Your task to perform on an android device: Open notification settings Image 0: 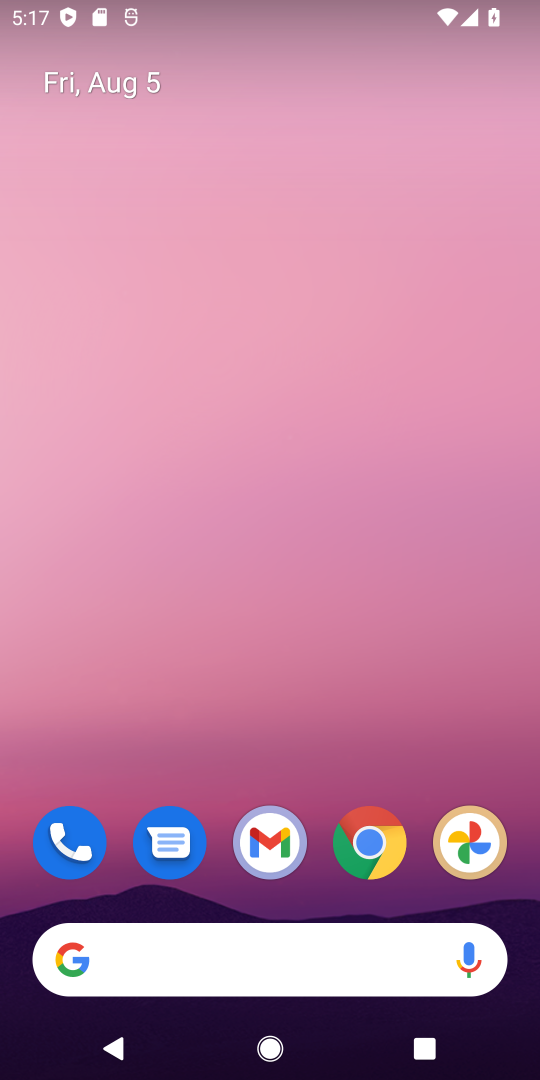
Step 0: press home button
Your task to perform on an android device: Open notification settings Image 1: 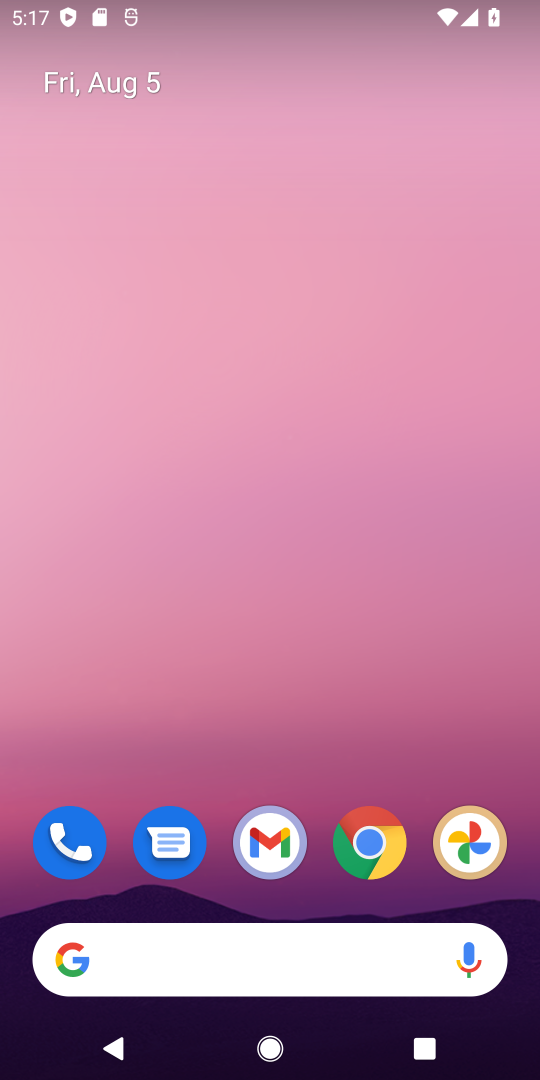
Step 1: drag from (277, 482) to (461, 15)
Your task to perform on an android device: Open notification settings Image 2: 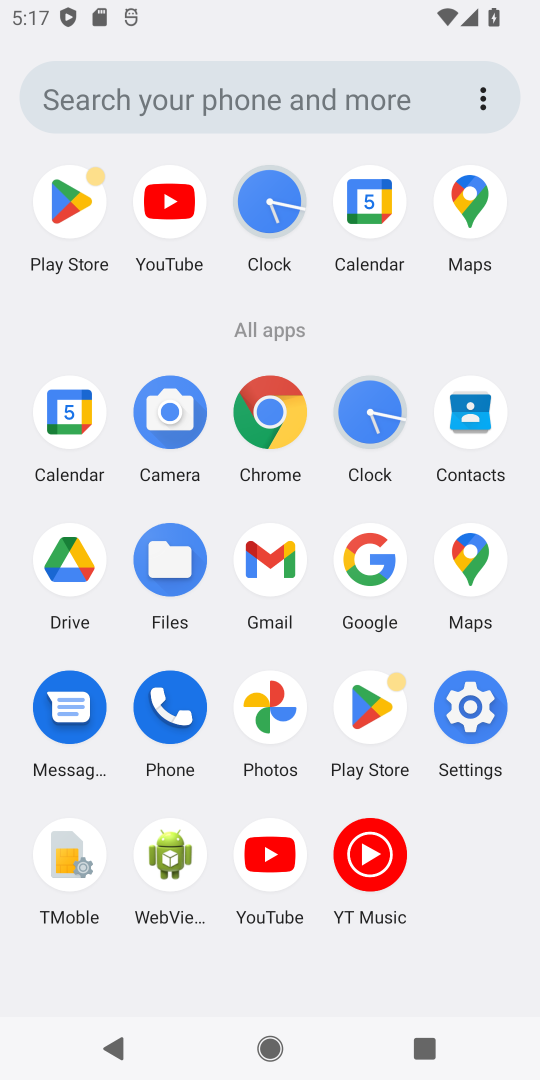
Step 2: click (473, 724)
Your task to perform on an android device: Open notification settings Image 3: 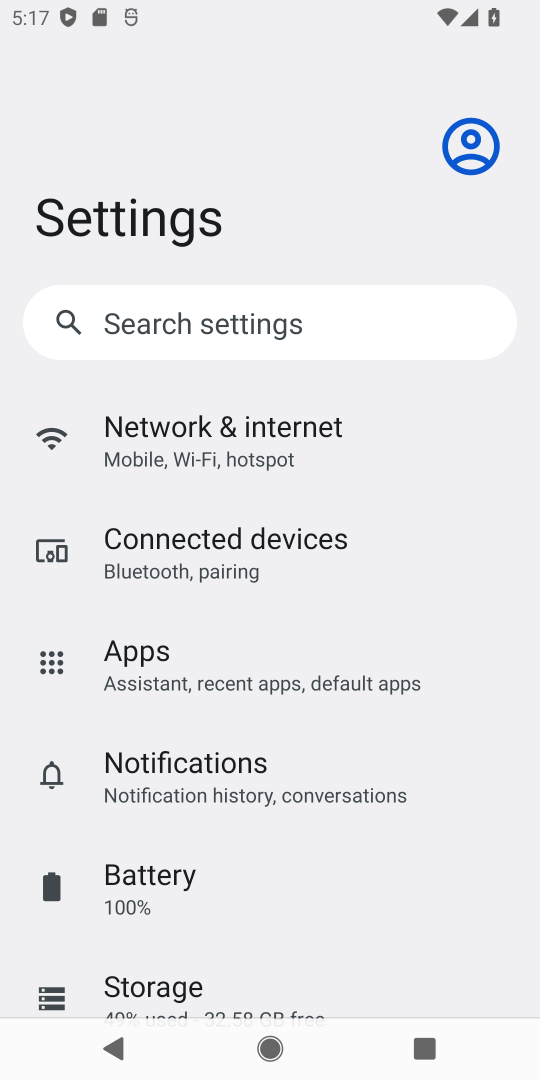
Step 3: click (252, 750)
Your task to perform on an android device: Open notification settings Image 4: 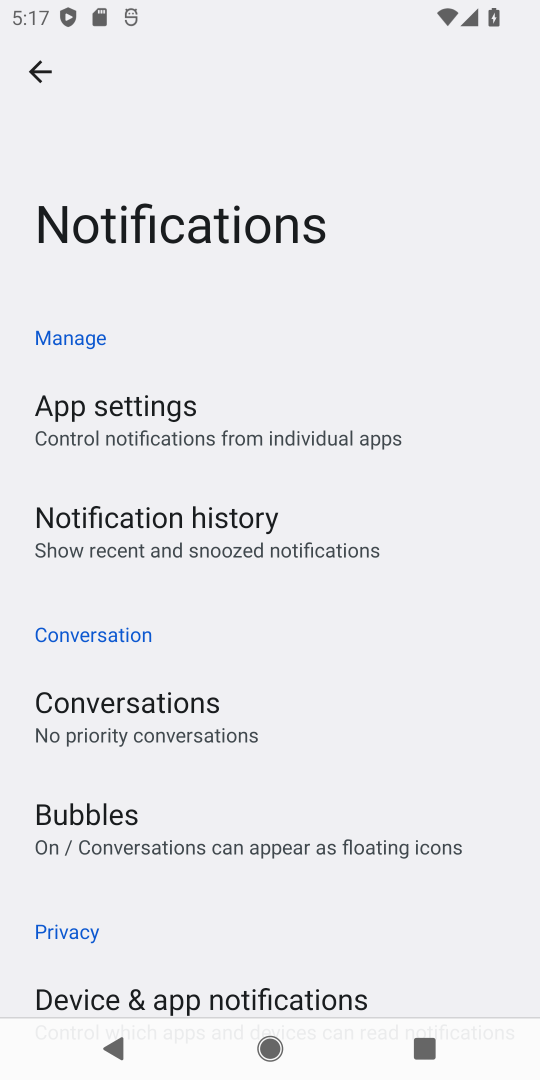
Step 4: task complete